Your task to perform on an android device: Go to settings Image 0: 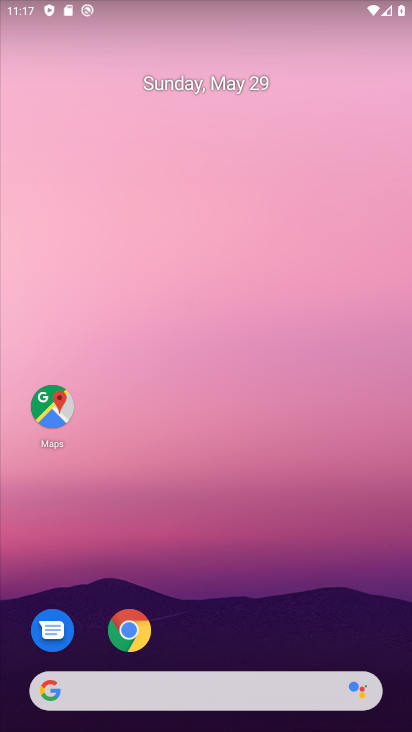
Step 0: drag from (121, 727) to (73, 55)
Your task to perform on an android device: Go to settings Image 1: 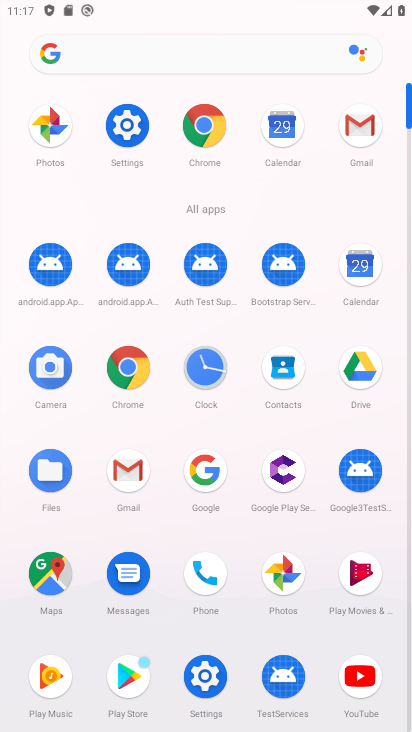
Step 1: click (128, 131)
Your task to perform on an android device: Go to settings Image 2: 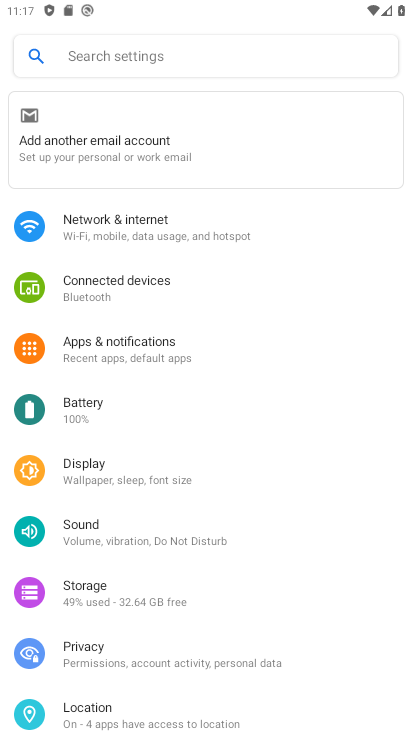
Step 2: task complete